Your task to perform on an android device: stop showing notifications on the lock screen Image 0: 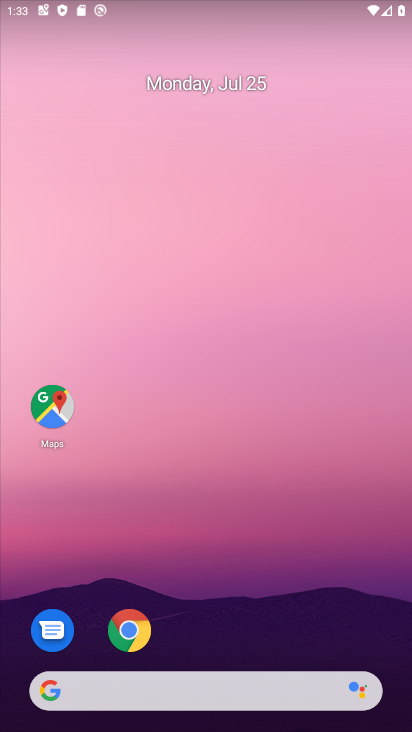
Step 0: drag from (273, 627) to (268, 11)
Your task to perform on an android device: stop showing notifications on the lock screen Image 1: 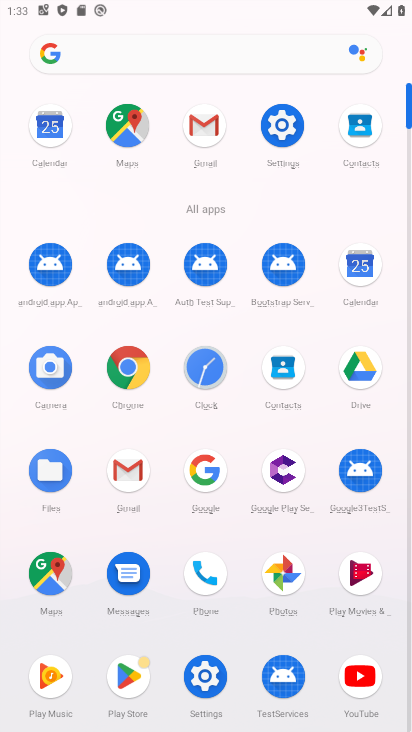
Step 1: click (275, 153)
Your task to perform on an android device: stop showing notifications on the lock screen Image 2: 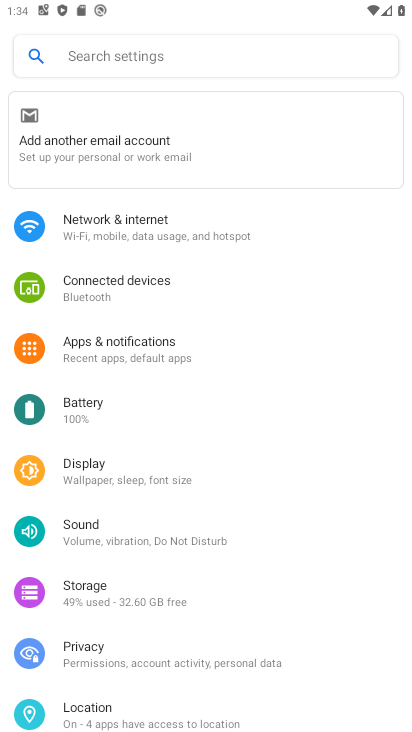
Step 2: click (176, 712)
Your task to perform on an android device: stop showing notifications on the lock screen Image 3: 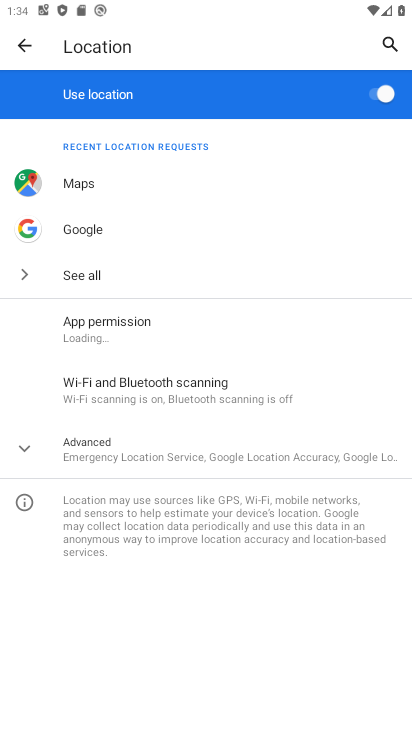
Step 3: click (30, 50)
Your task to perform on an android device: stop showing notifications on the lock screen Image 4: 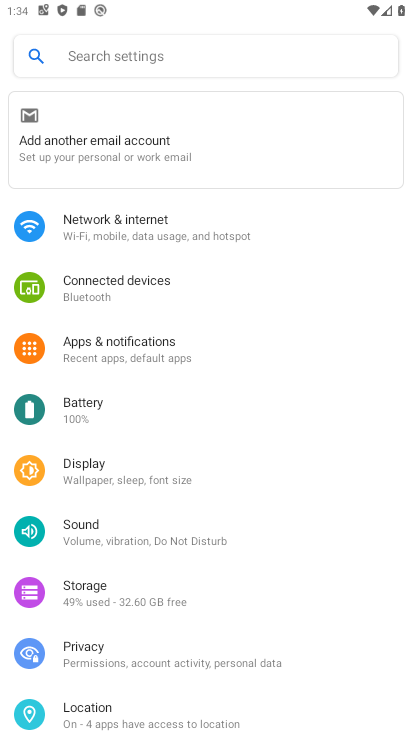
Step 4: task complete